Your task to perform on an android device: Go to location settings Image 0: 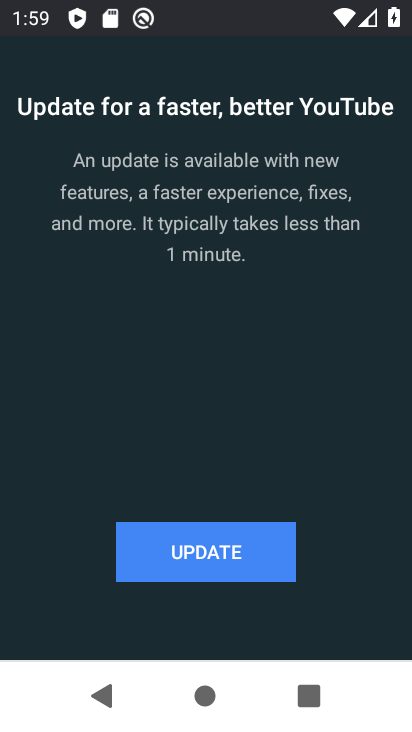
Step 0: press home button
Your task to perform on an android device: Go to location settings Image 1: 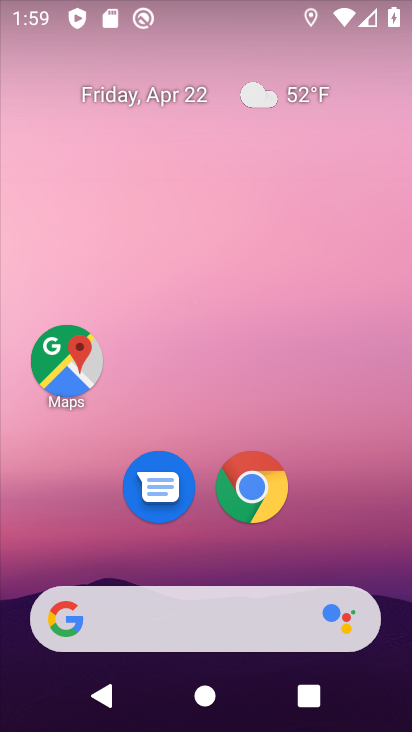
Step 1: drag from (202, 554) to (269, 9)
Your task to perform on an android device: Go to location settings Image 2: 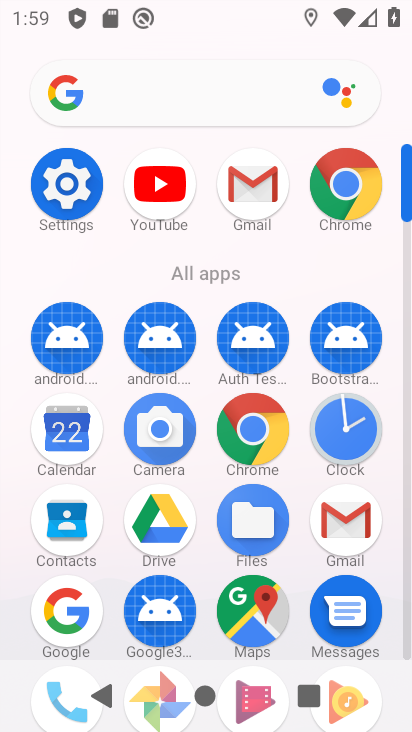
Step 2: click (84, 205)
Your task to perform on an android device: Go to location settings Image 3: 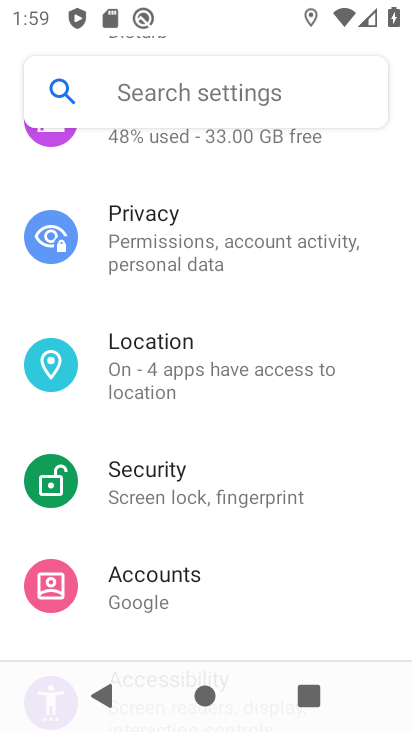
Step 3: click (151, 366)
Your task to perform on an android device: Go to location settings Image 4: 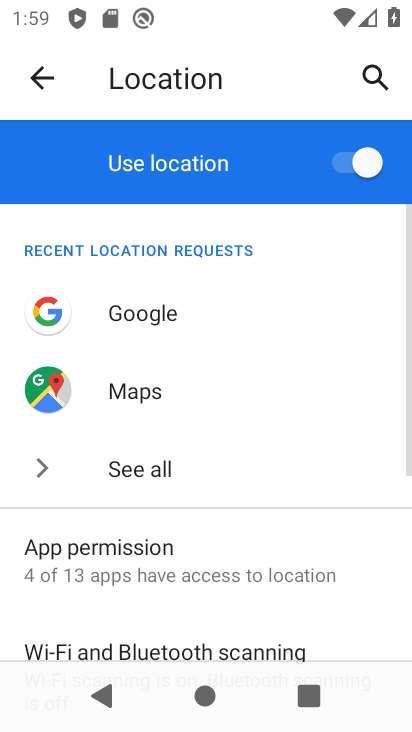
Step 4: task complete